Your task to perform on an android device: open the mobile data screen to see how much data has been used Image 0: 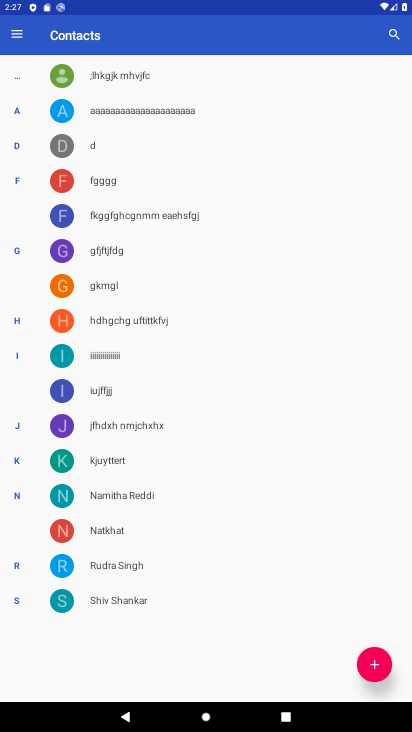
Step 0: press home button
Your task to perform on an android device: open the mobile data screen to see how much data has been used Image 1: 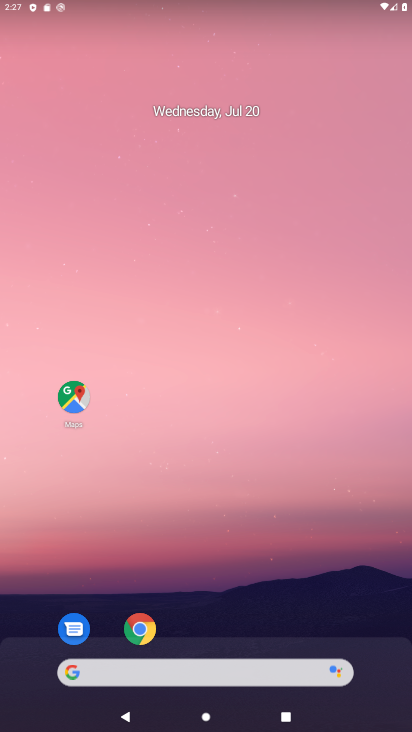
Step 1: drag from (250, 634) to (268, 146)
Your task to perform on an android device: open the mobile data screen to see how much data has been used Image 2: 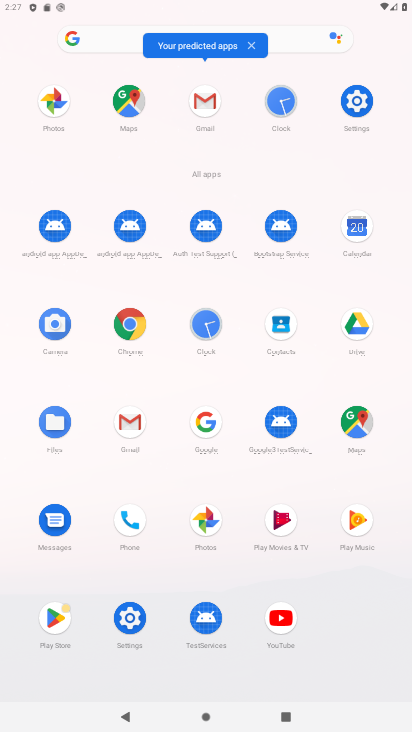
Step 2: click (134, 624)
Your task to perform on an android device: open the mobile data screen to see how much data has been used Image 3: 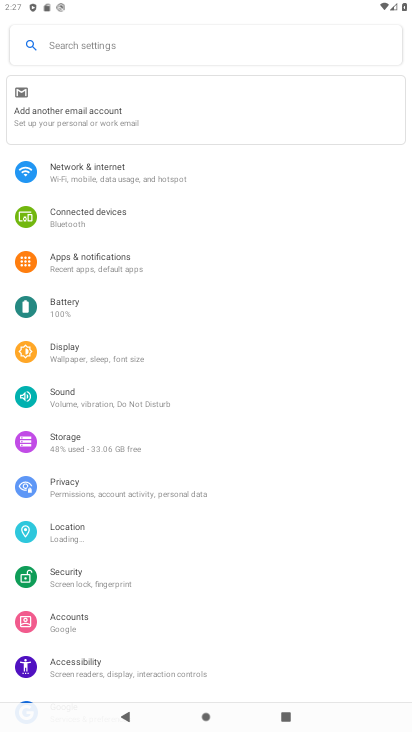
Step 3: click (208, 166)
Your task to perform on an android device: open the mobile data screen to see how much data has been used Image 4: 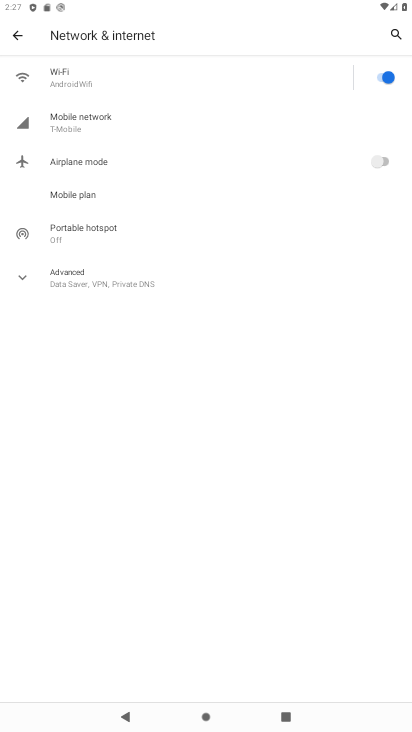
Step 4: click (125, 127)
Your task to perform on an android device: open the mobile data screen to see how much data has been used Image 5: 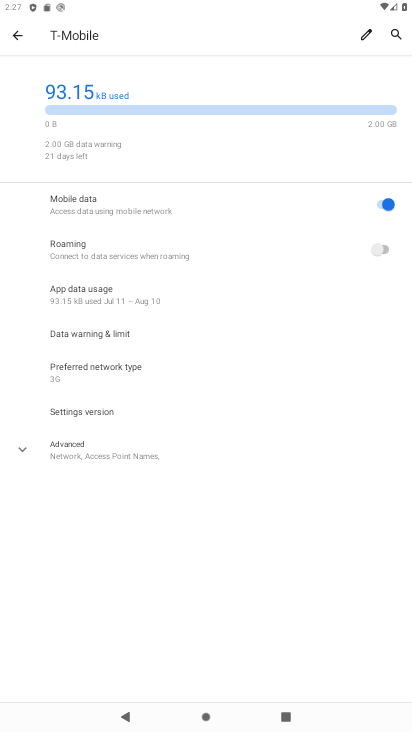
Step 5: task complete